Your task to perform on an android device: Open Google Chrome Image 0: 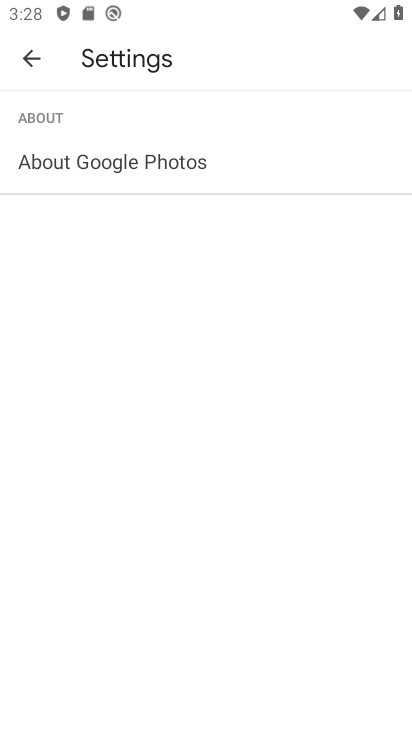
Step 0: click (35, 19)
Your task to perform on an android device: Open Google Chrome Image 1: 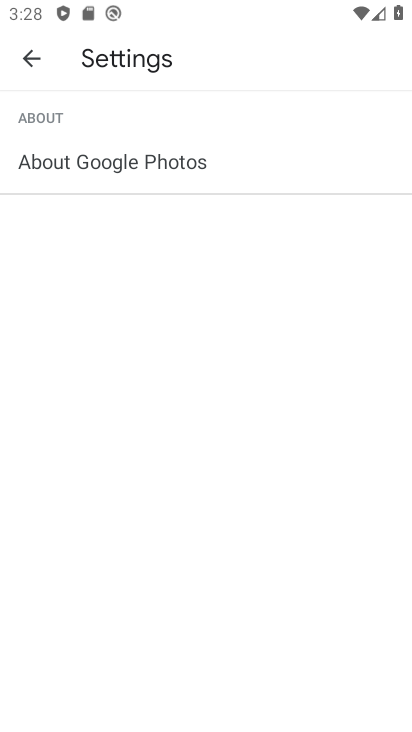
Step 1: click (29, 61)
Your task to perform on an android device: Open Google Chrome Image 2: 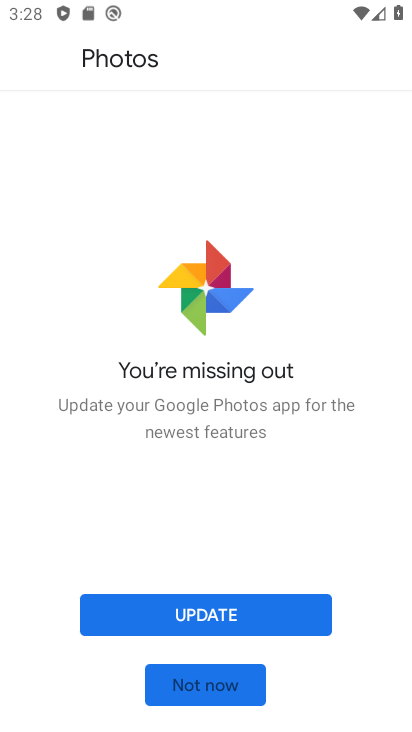
Step 2: click (211, 682)
Your task to perform on an android device: Open Google Chrome Image 3: 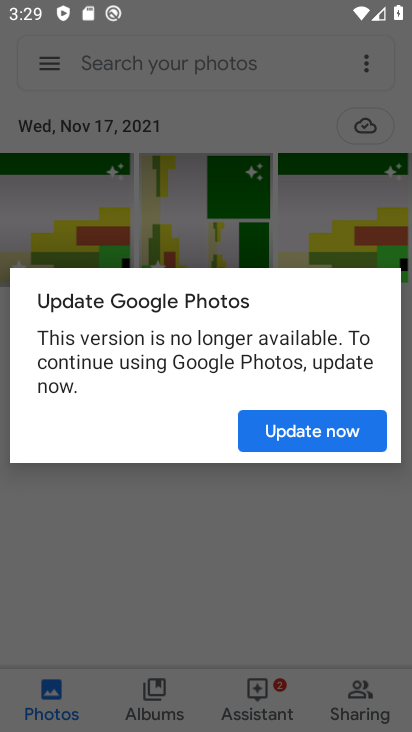
Step 3: click (297, 432)
Your task to perform on an android device: Open Google Chrome Image 4: 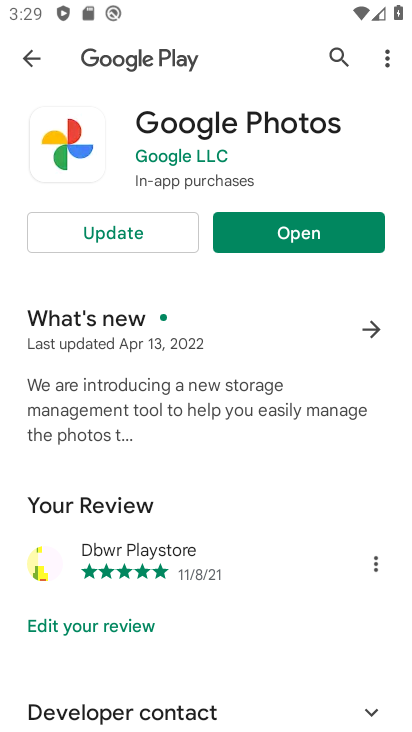
Step 4: press home button
Your task to perform on an android device: Open Google Chrome Image 5: 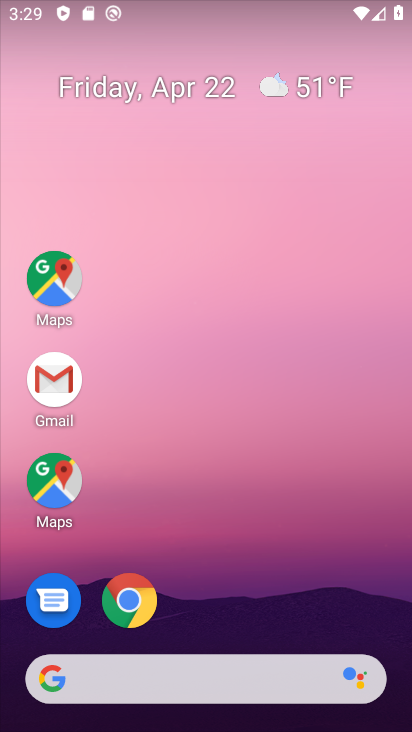
Step 5: drag from (282, 287) to (246, 56)
Your task to perform on an android device: Open Google Chrome Image 6: 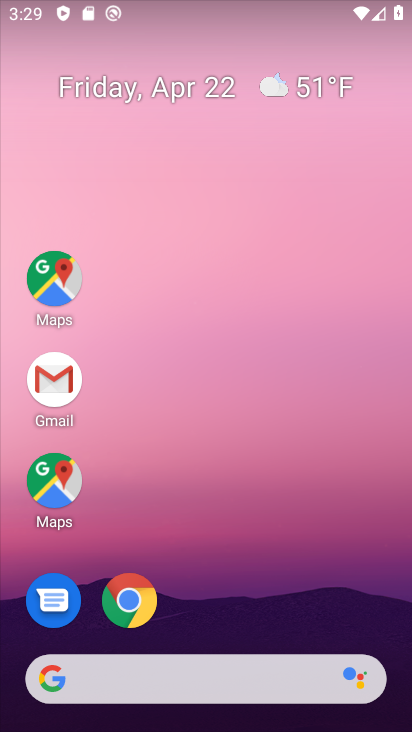
Step 6: drag from (328, 622) to (138, 147)
Your task to perform on an android device: Open Google Chrome Image 7: 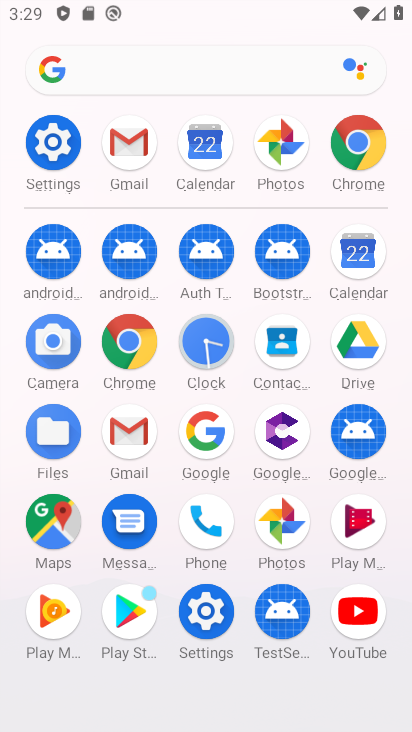
Step 7: click (214, 424)
Your task to perform on an android device: Open Google Chrome Image 8: 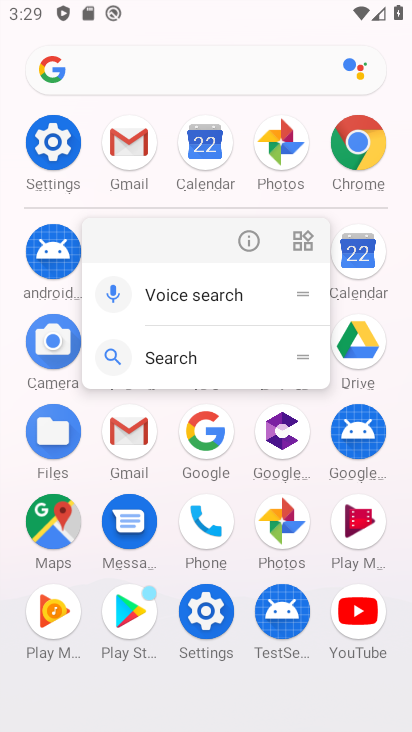
Step 8: click (208, 431)
Your task to perform on an android device: Open Google Chrome Image 9: 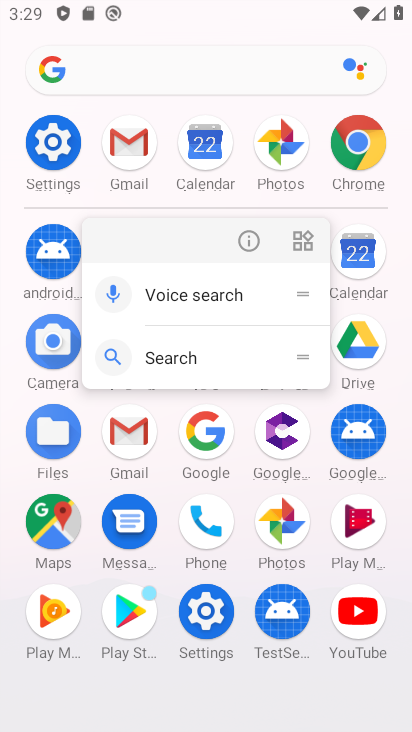
Step 9: click (212, 428)
Your task to perform on an android device: Open Google Chrome Image 10: 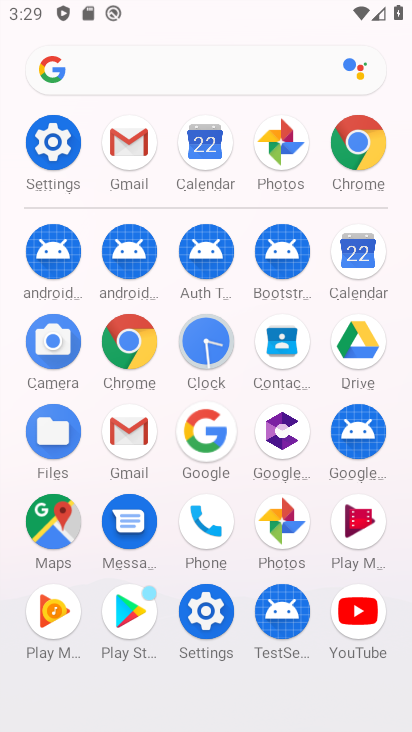
Step 10: drag from (216, 428) to (183, 416)
Your task to perform on an android device: Open Google Chrome Image 11: 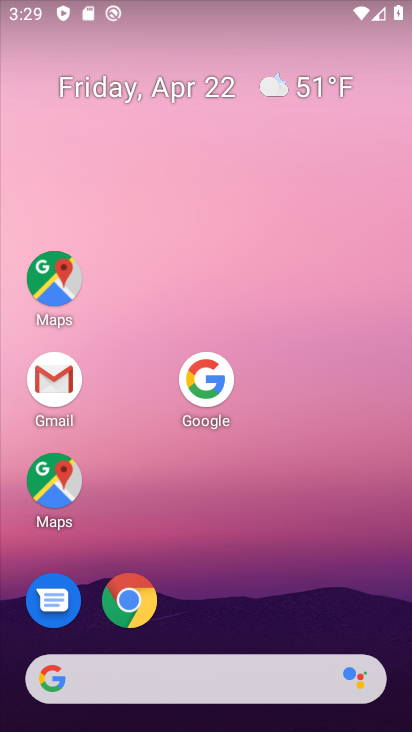
Step 11: drag from (306, 634) to (206, 63)
Your task to perform on an android device: Open Google Chrome Image 12: 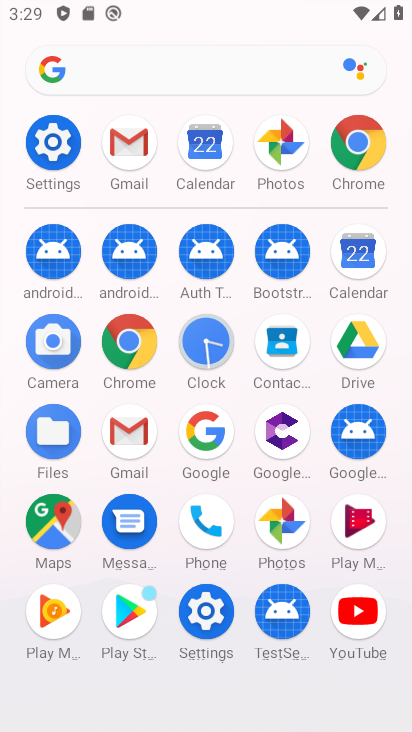
Step 12: click (208, 438)
Your task to perform on an android device: Open Google Chrome Image 13: 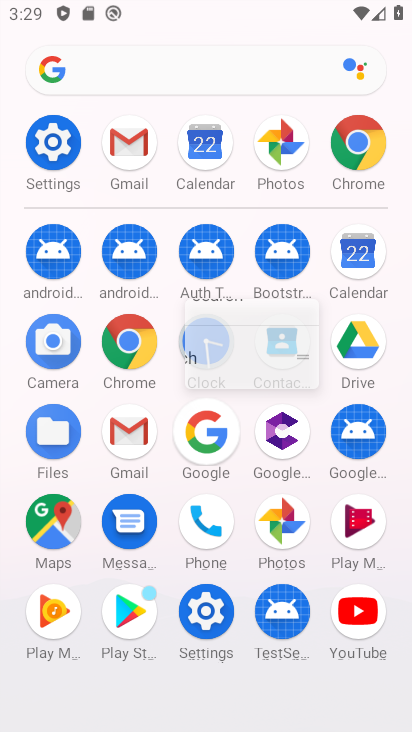
Step 13: click (206, 435)
Your task to perform on an android device: Open Google Chrome Image 14: 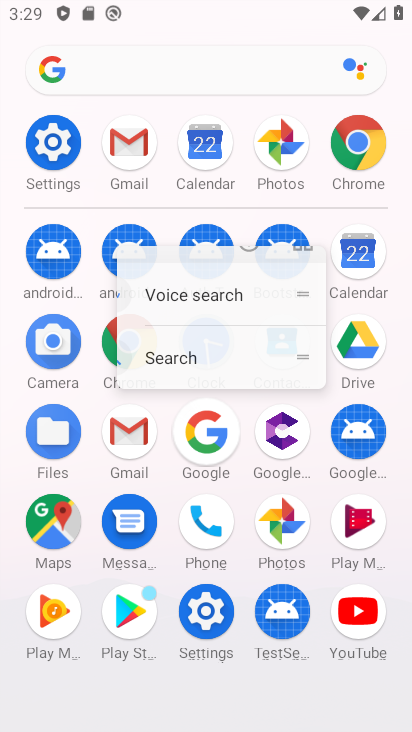
Step 14: click (203, 432)
Your task to perform on an android device: Open Google Chrome Image 15: 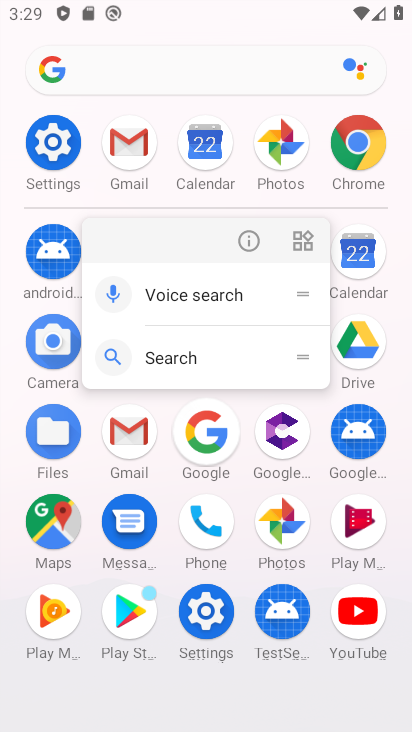
Step 15: click (225, 434)
Your task to perform on an android device: Open Google Chrome Image 16: 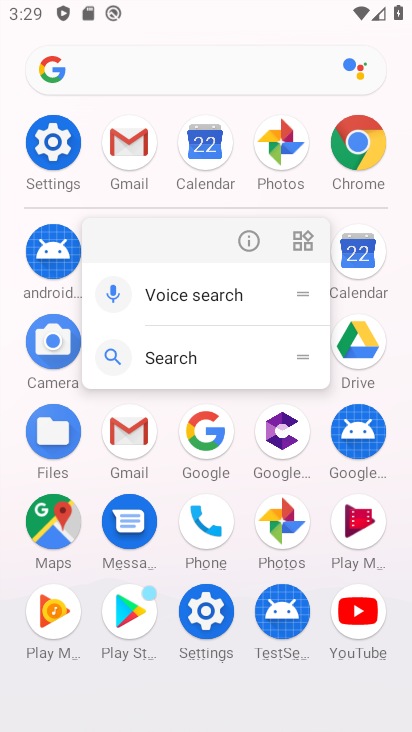
Step 16: click (225, 434)
Your task to perform on an android device: Open Google Chrome Image 17: 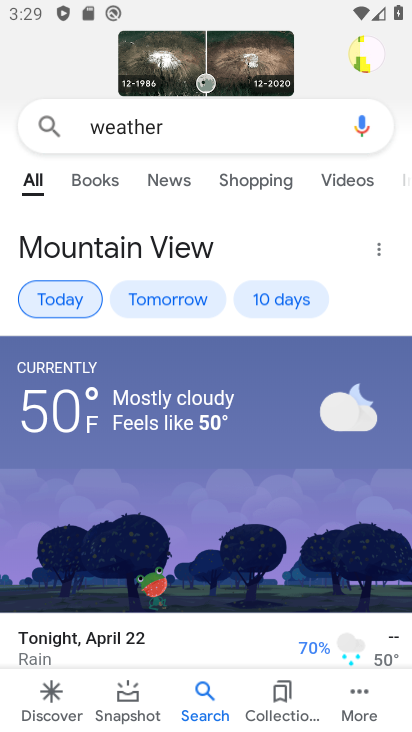
Step 17: drag from (228, 587) to (200, 290)
Your task to perform on an android device: Open Google Chrome Image 18: 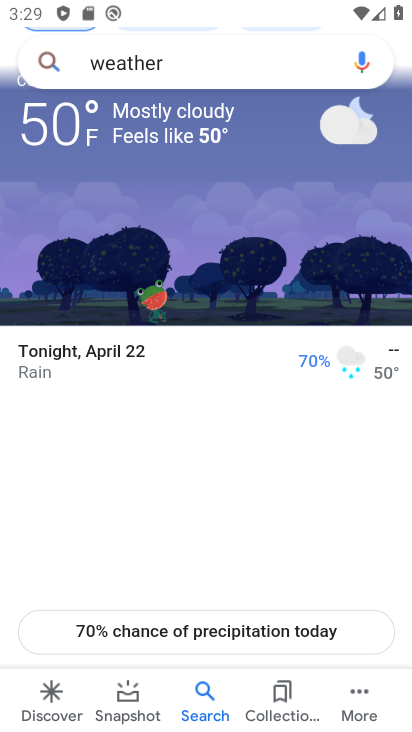
Step 18: drag from (201, 489) to (169, 293)
Your task to perform on an android device: Open Google Chrome Image 19: 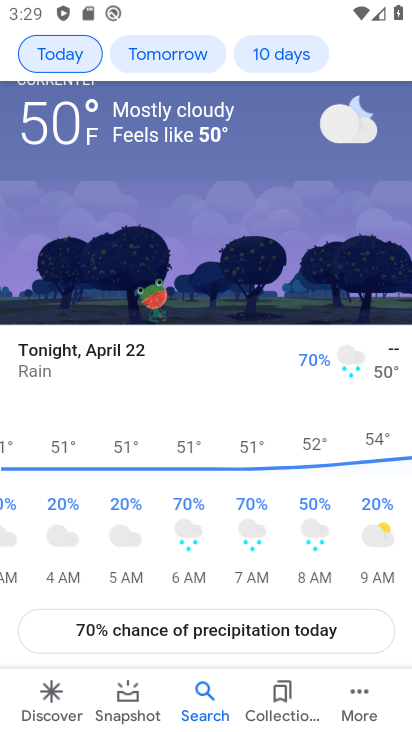
Step 19: drag from (220, 403) to (191, 225)
Your task to perform on an android device: Open Google Chrome Image 20: 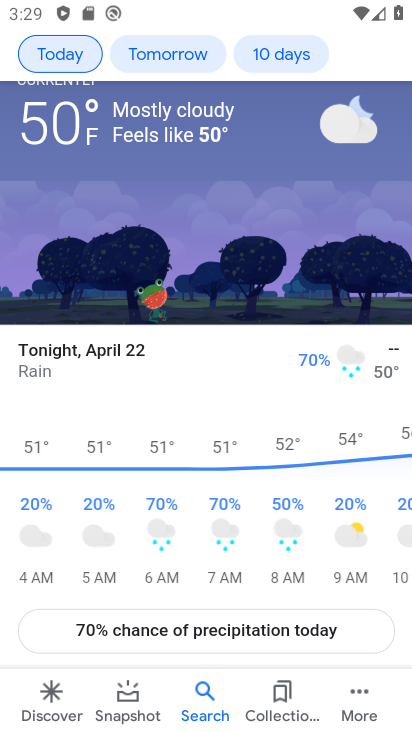
Step 20: drag from (191, 319) to (222, 617)
Your task to perform on an android device: Open Google Chrome Image 21: 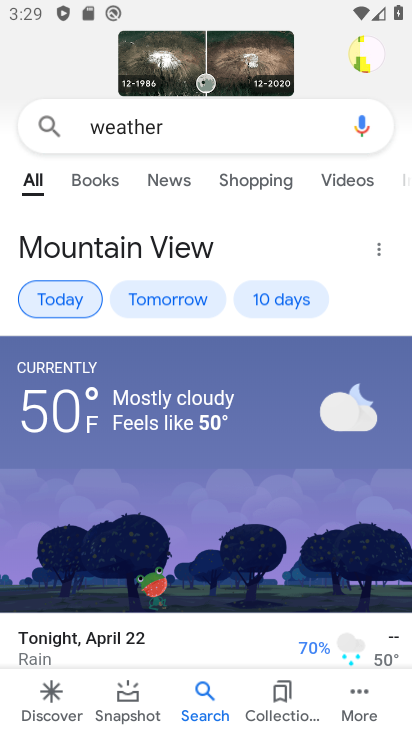
Step 21: click (220, 729)
Your task to perform on an android device: Open Google Chrome Image 22: 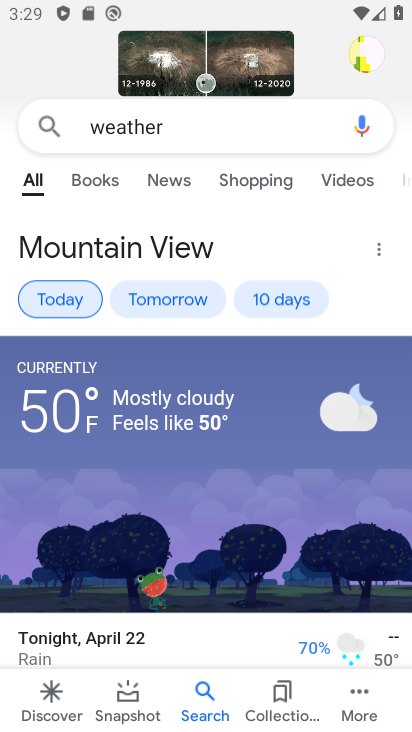
Step 22: task complete